Your task to perform on an android device: Open Yahoo.com Image 0: 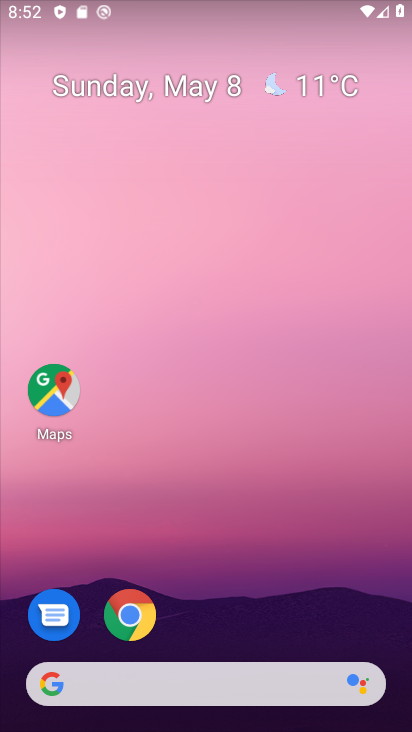
Step 0: drag from (238, 552) to (191, 106)
Your task to perform on an android device: Open Yahoo.com Image 1: 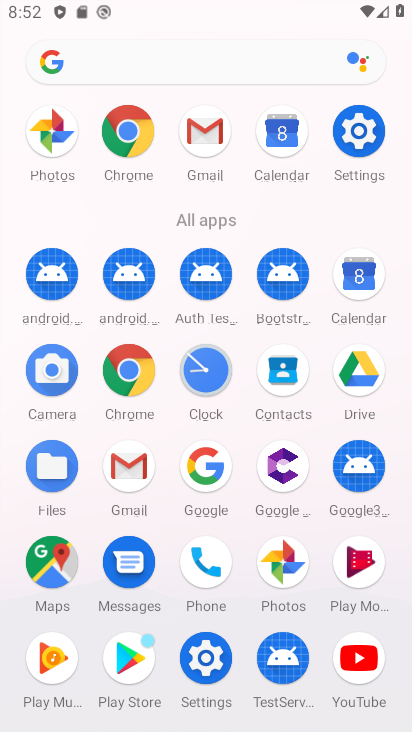
Step 1: click (137, 368)
Your task to perform on an android device: Open Yahoo.com Image 2: 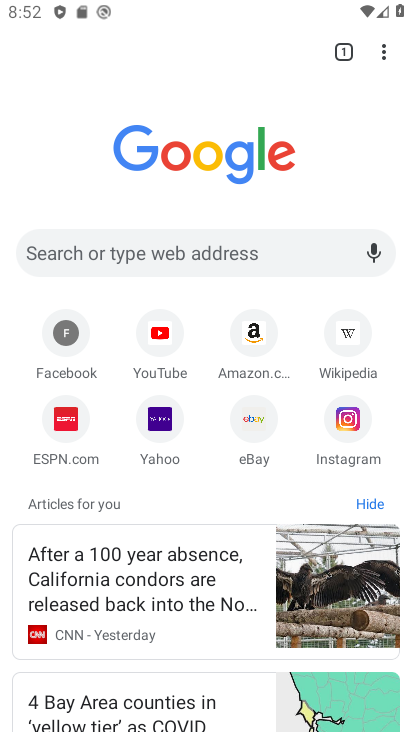
Step 2: click (154, 423)
Your task to perform on an android device: Open Yahoo.com Image 3: 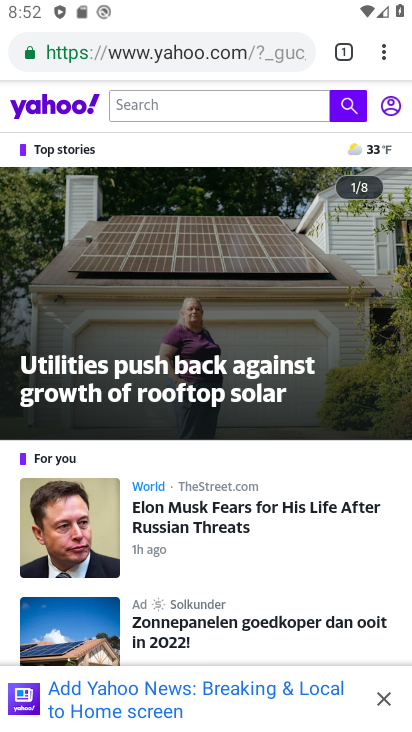
Step 3: task complete